Your task to perform on an android device: open chrome and create a bookmark for the current page Image 0: 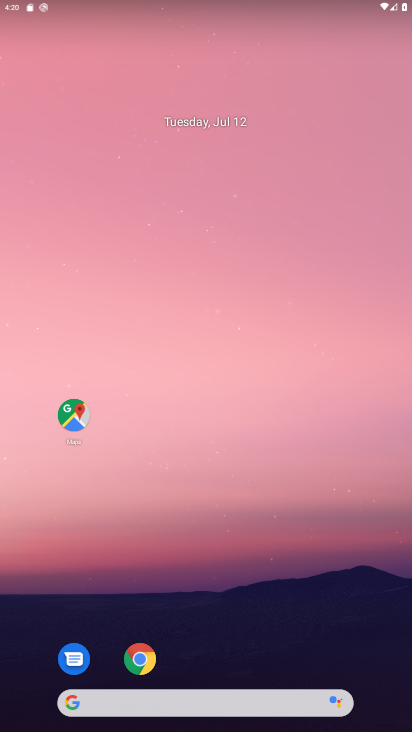
Step 0: click (145, 658)
Your task to perform on an android device: open chrome and create a bookmark for the current page Image 1: 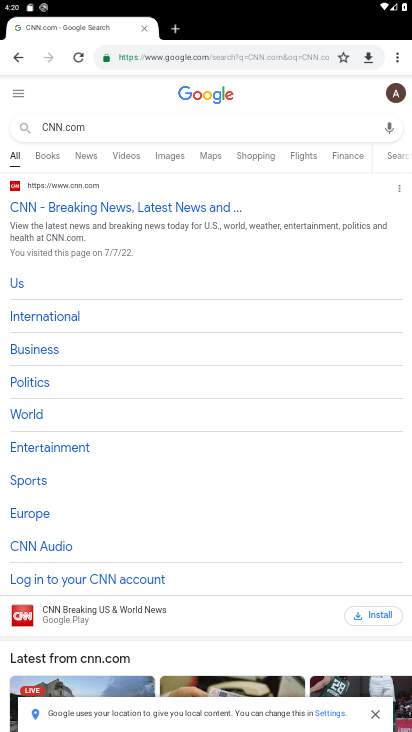
Step 1: click (394, 60)
Your task to perform on an android device: open chrome and create a bookmark for the current page Image 2: 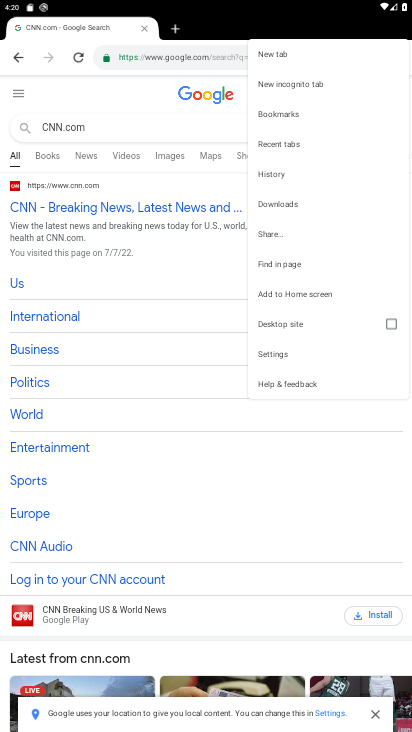
Step 2: click (277, 113)
Your task to perform on an android device: open chrome and create a bookmark for the current page Image 3: 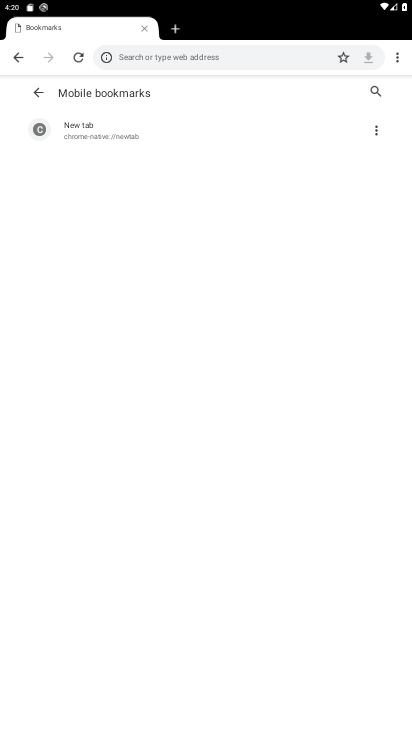
Step 3: click (346, 57)
Your task to perform on an android device: open chrome and create a bookmark for the current page Image 4: 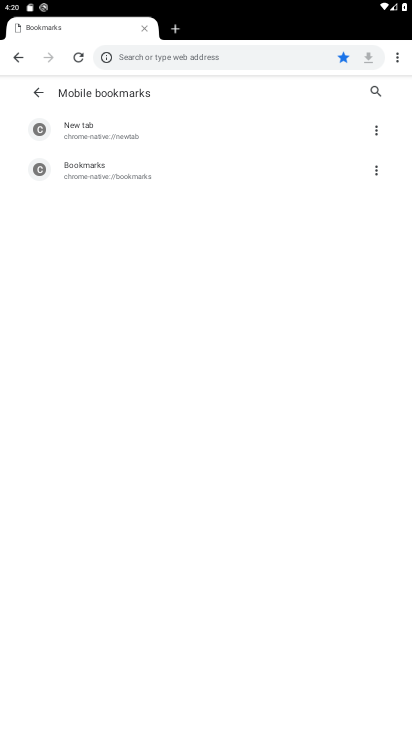
Step 4: task complete